Your task to perform on an android device: delete a single message in the gmail app Image 0: 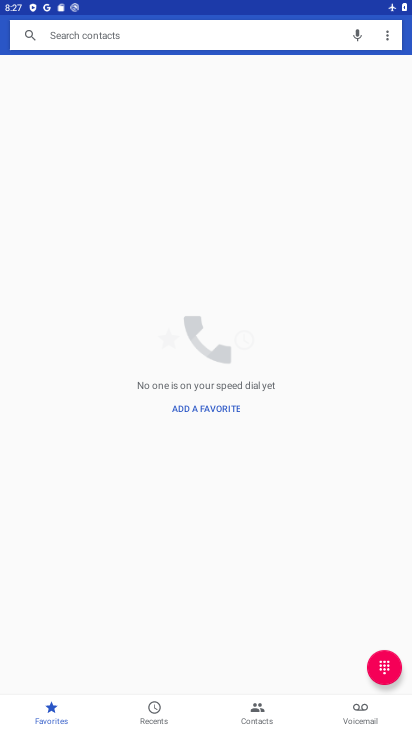
Step 0: press back button
Your task to perform on an android device: delete a single message in the gmail app Image 1: 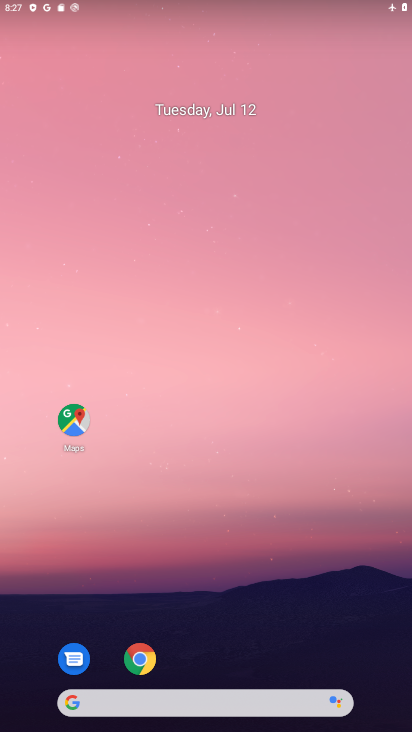
Step 1: drag from (225, 677) to (204, 181)
Your task to perform on an android device: delete a single message in the gmail app Image 2: 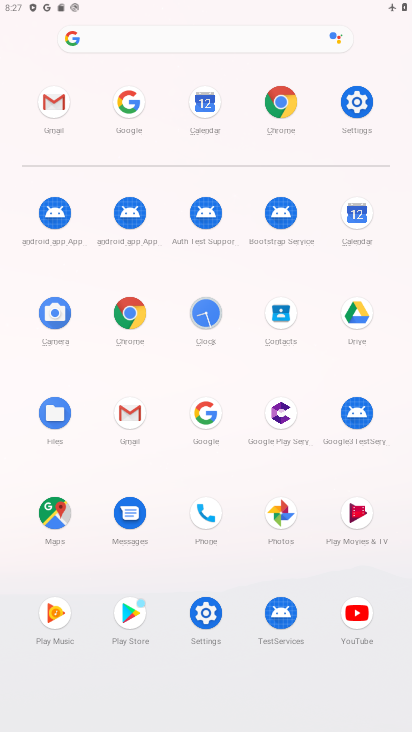
Step 2: click (124, 407)
Your task to perform on an android device: delete a single message in the gmail app Image 3: 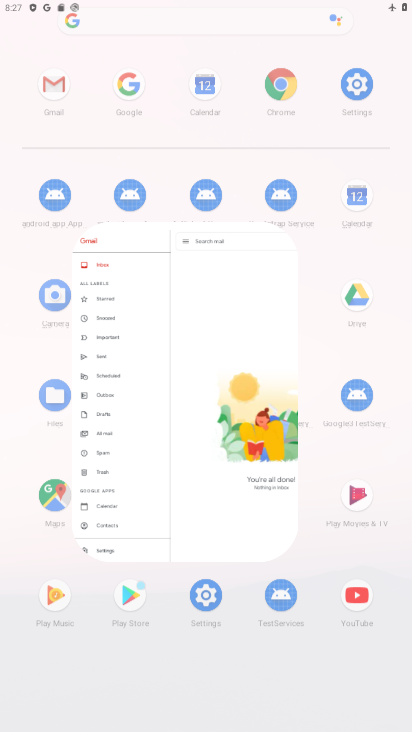
Step 3: click (127, 414)
Your task to perform on an android device: delete a single message in the gmail app Image 4: 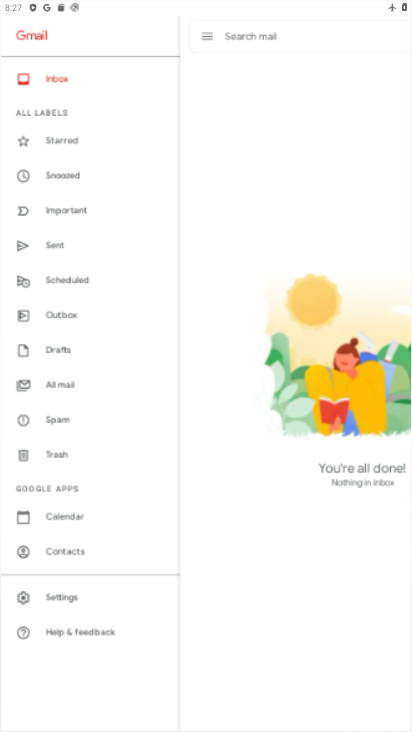
Step 4: click (129, 409)
Your task to perform on an android device: delete a single message in the gmail app Image 5: 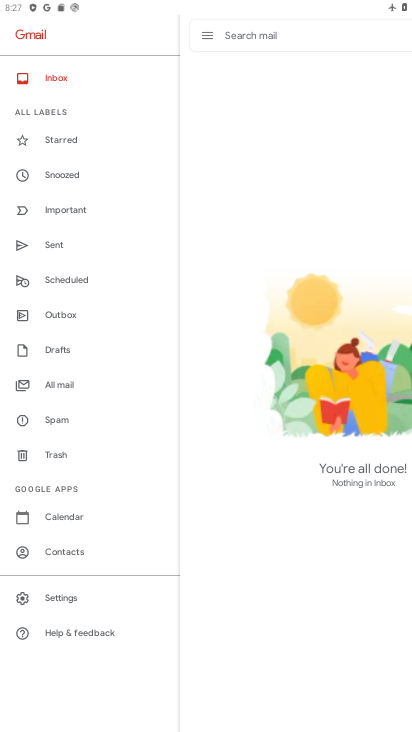
Step 5: click (57, 381)
Your task to perform on an android device: delete a single message in the gmail app Image 6: 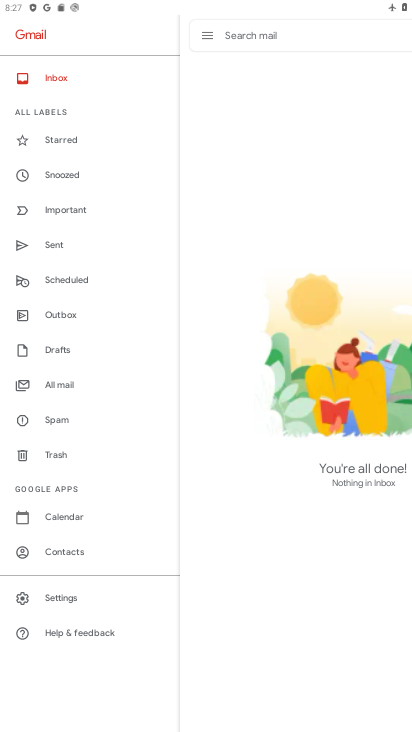
Step 6: click (57, 381)
Your task to perform on an android device: delete a single message in the gmail app Image 7: 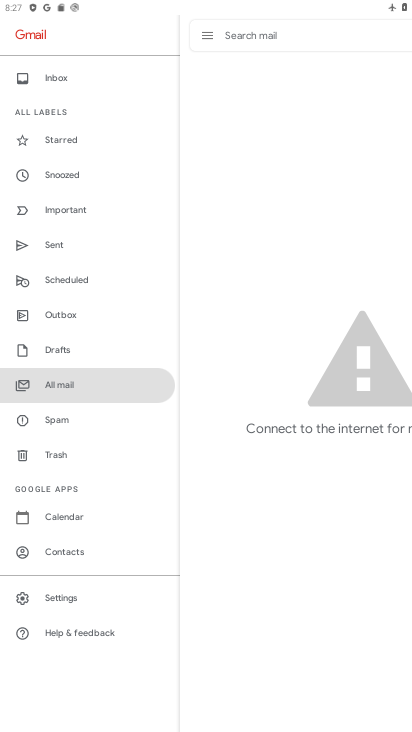
Step 7: click (103, 388)
Your task to perform on an android device: delete a single message in the gmail app Image 8: 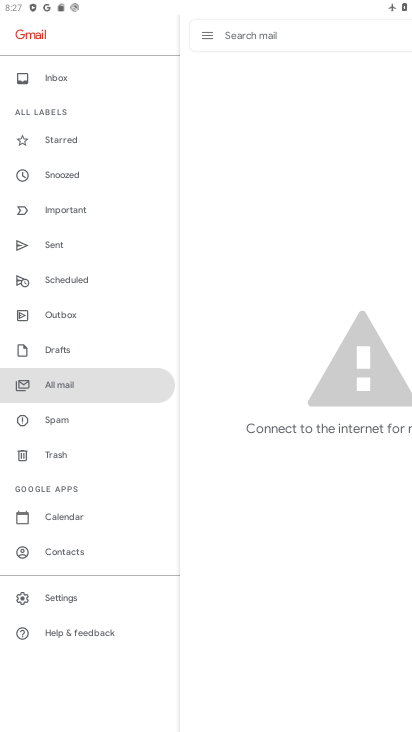
Step 8: click (91, 377)
Your task to perform on an android device: delete a single message in the gmail app Image 9: 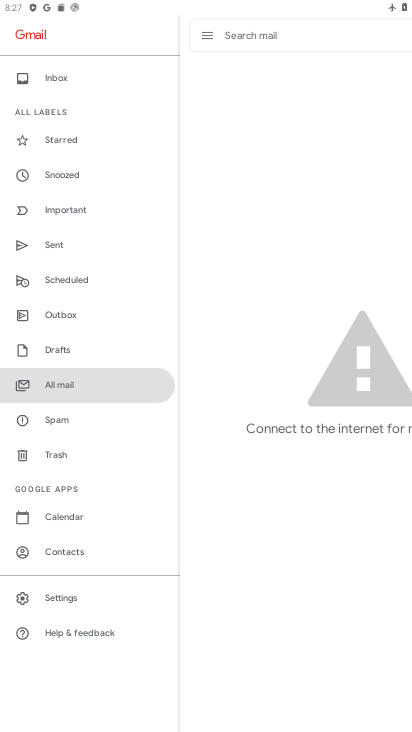
Step 9: click (91, 377)
Your task to perform on an android device: delete a single message in the gmail app Image 10: 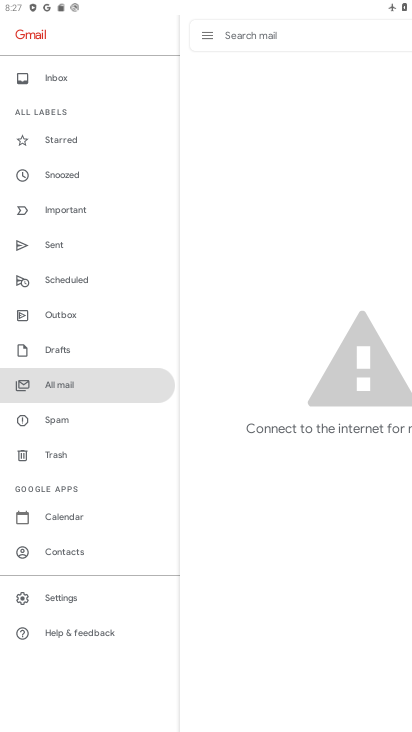
Step 10: click (87, 368)
Your task to perform on an android device: delete a single message in the gmail app Image 11: 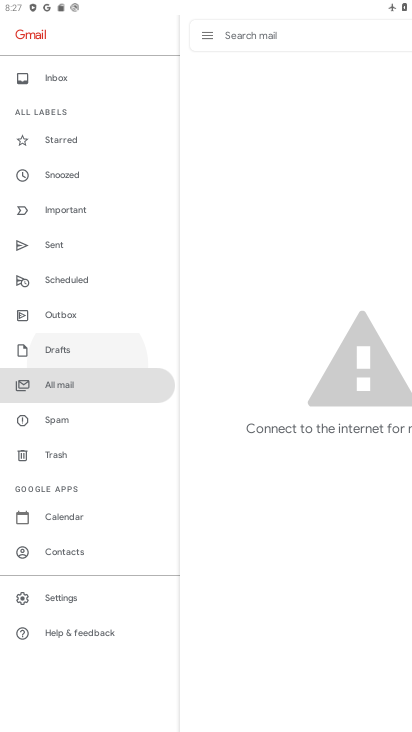
Step 11: click (86, 386)
Your task to perform on an android device: delete a single message in the gmail app Image 12: 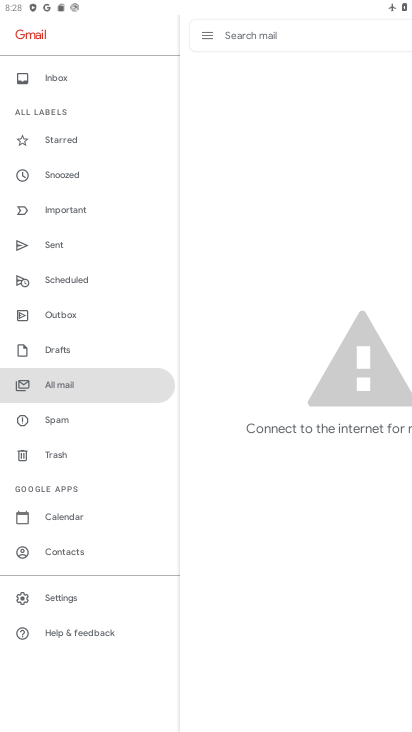
Step 12: click (79, 381)
Your task to perform on an android device: delete a single message in the gmail app Image 13: 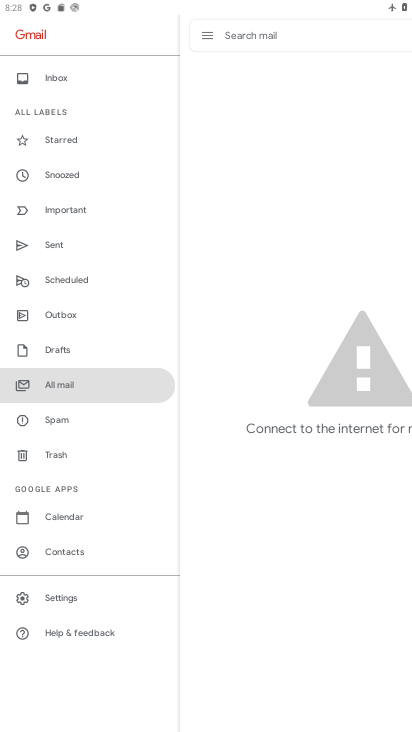
Step 13: click (79, 382)
Your task to perform on an android device: delete a single message in the gmail app Image 14: 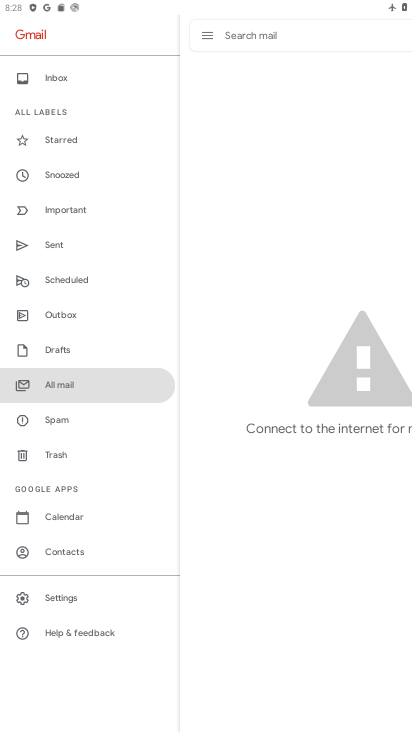
Step 14: click (79, 384)
Your task to perform on an android device: delete a single message in the gmail app Image 15: 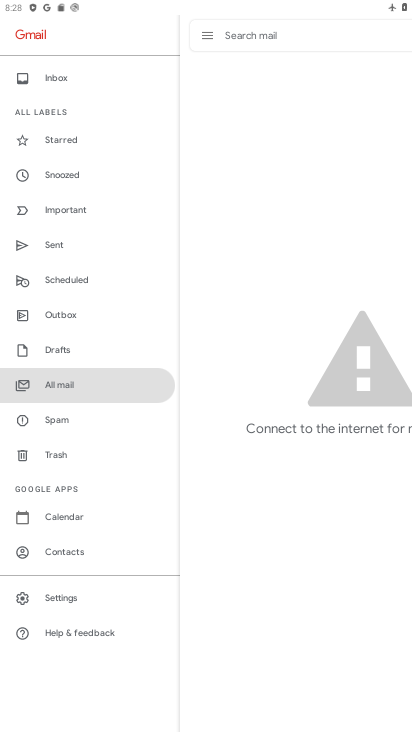
Step 15: click (80, 384)
Your task to perform on an android device: delete a single message in the gmail app Image 16: 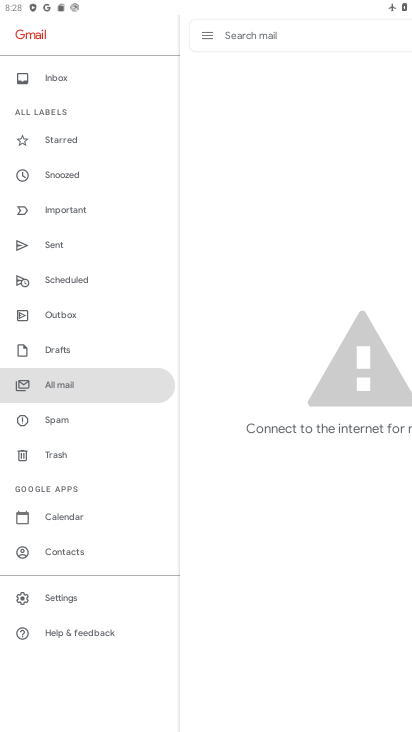
Step 16: click (81, 385)
Your task to perform on an android device: delete a single message in the gmail app Image 17: 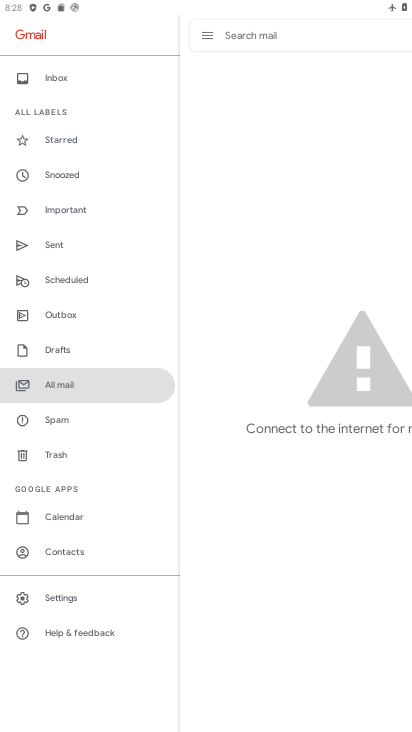
Step 17: click (82, 386)
Your task to perform on an android device: delete a single message in the gmail app Image 18: 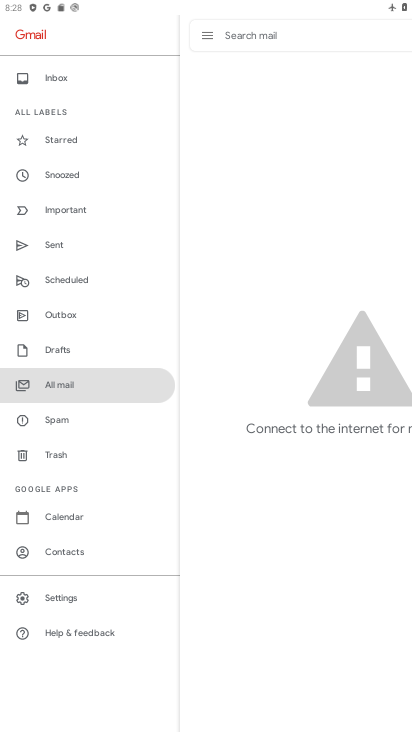
Step 18: click (84, 386)
Your task to perform on an android device: delete a single message in the gmail app Image 19: 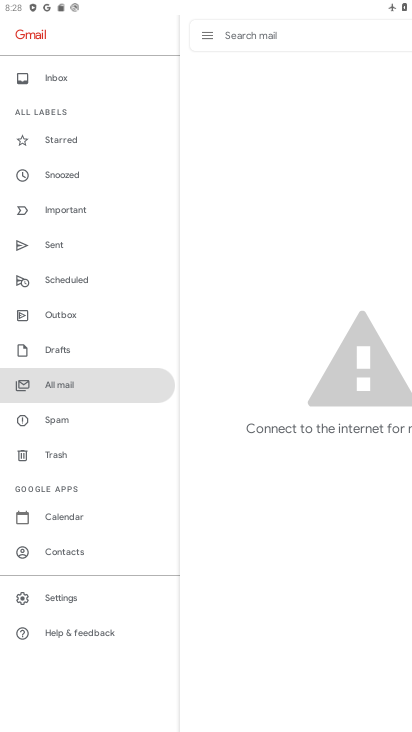
Step 19: task complete